Your task to perform on an android device: turn off location Image 0: 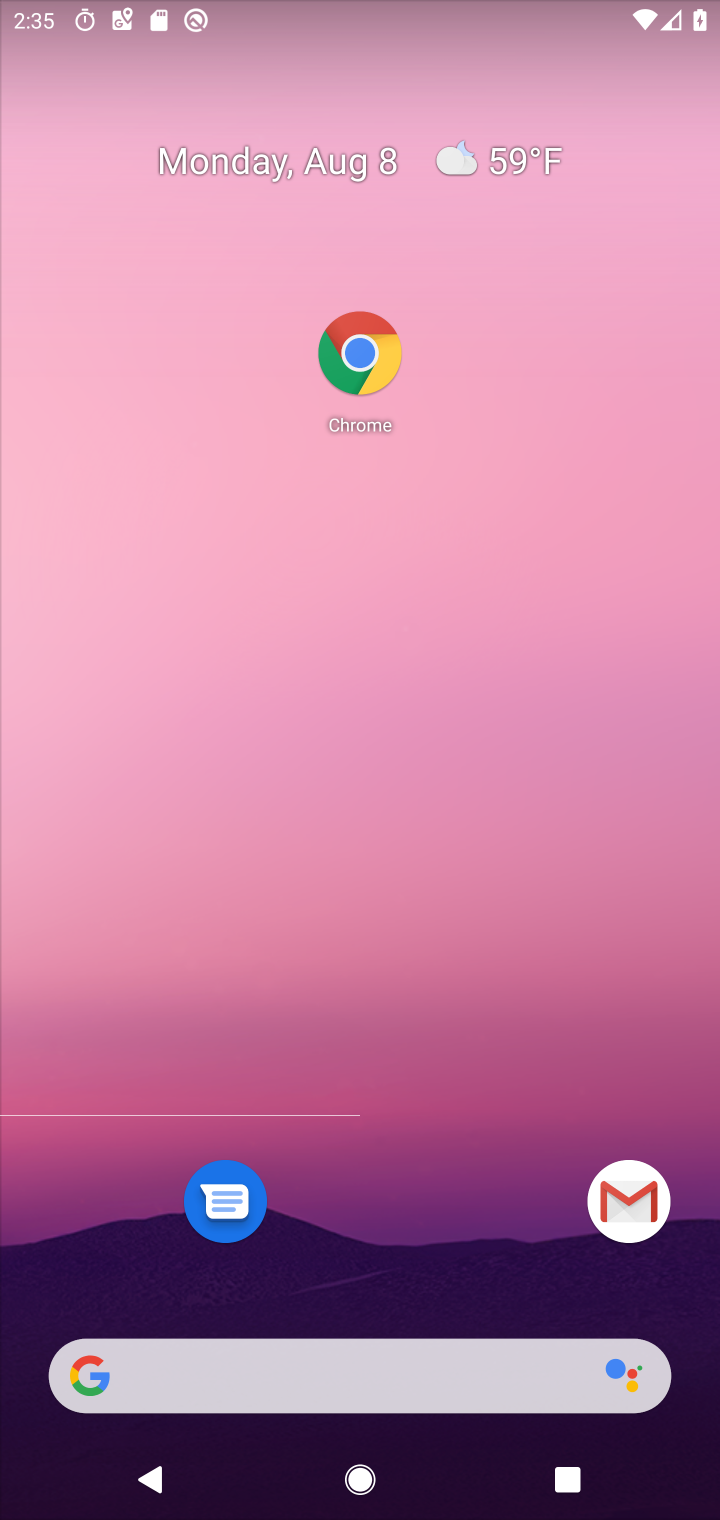
Step 0: press home button
Your task to perform on an android device: turn off location Image 1: 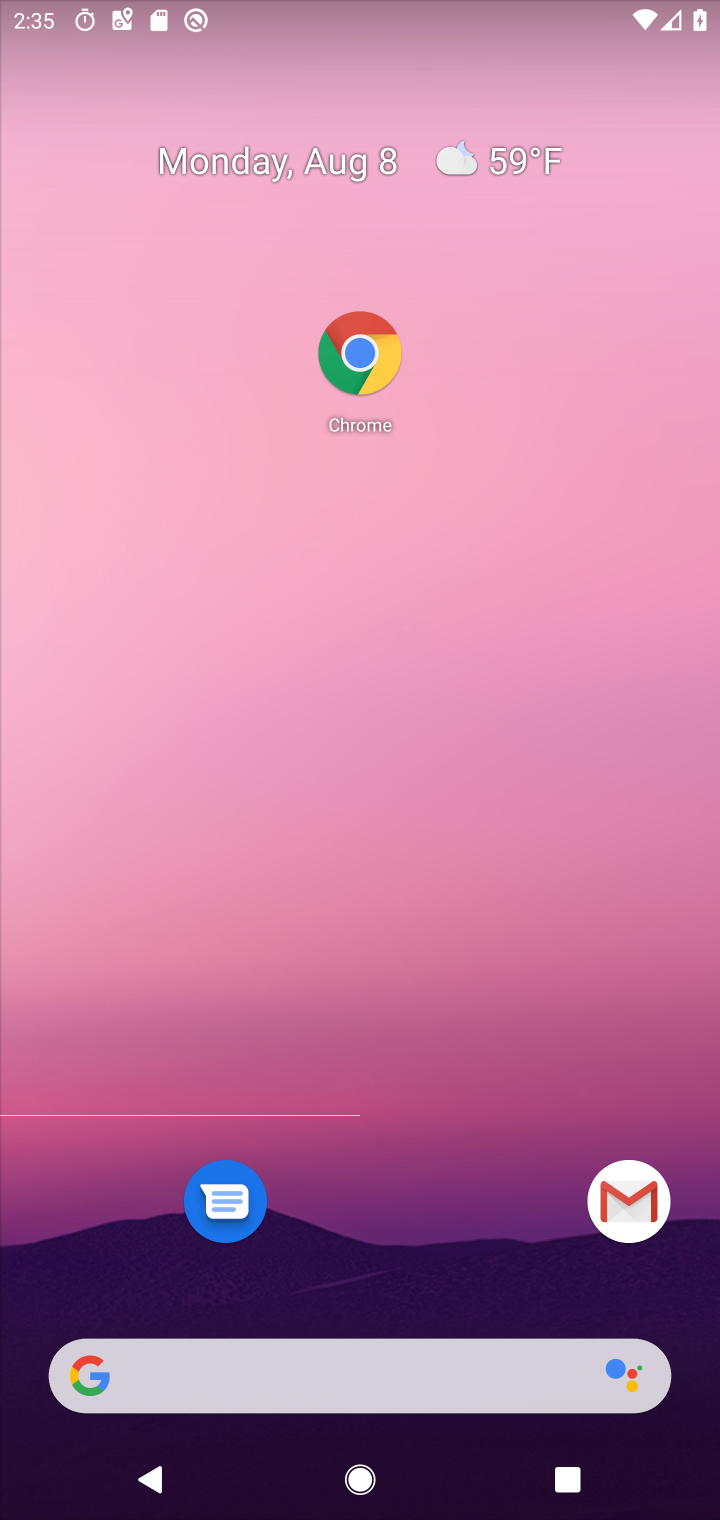
Step 1: drag from (454, 1409) to (511, 358)
Your task to perform on an android device: turn off location Image 2: 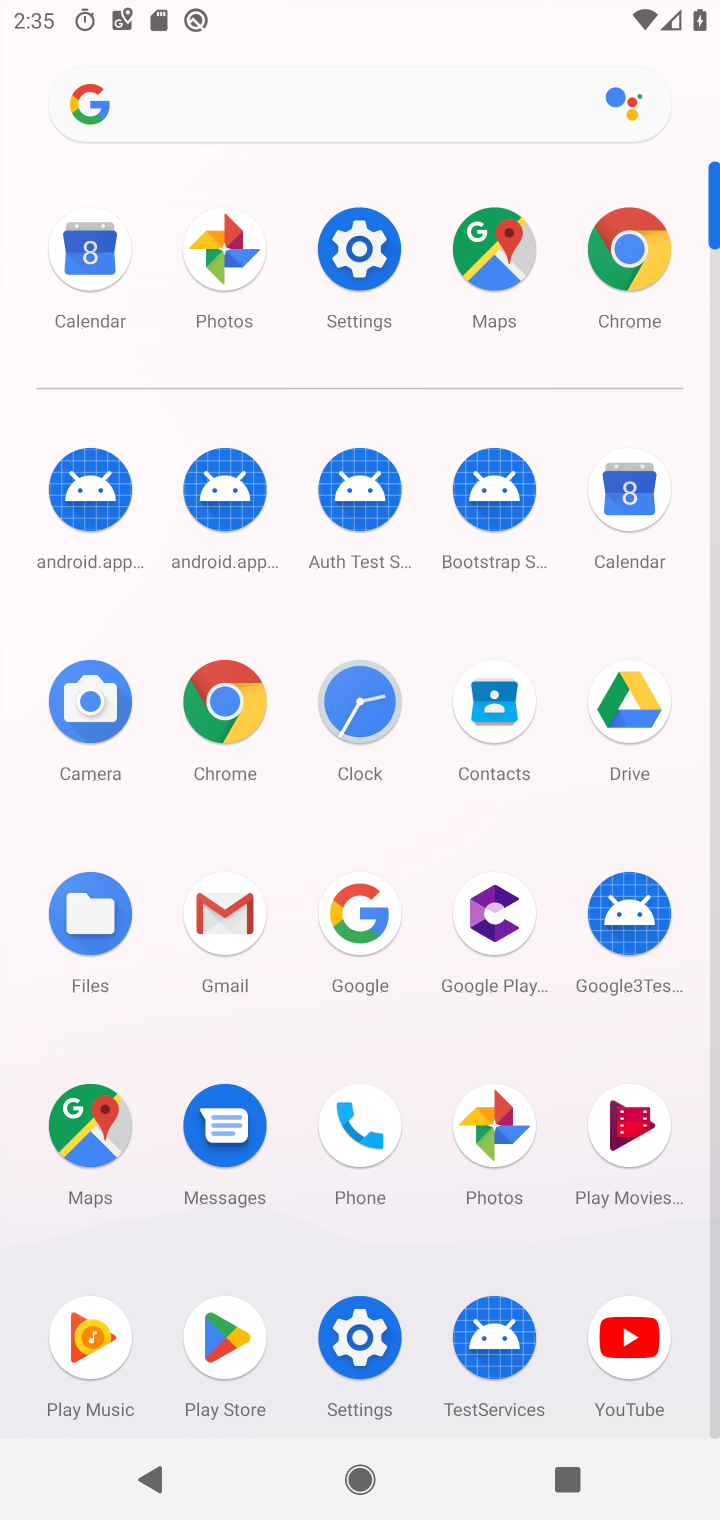
Step 2: click (335, 267)
Your task to perform on an android device: turn off location Image 3: 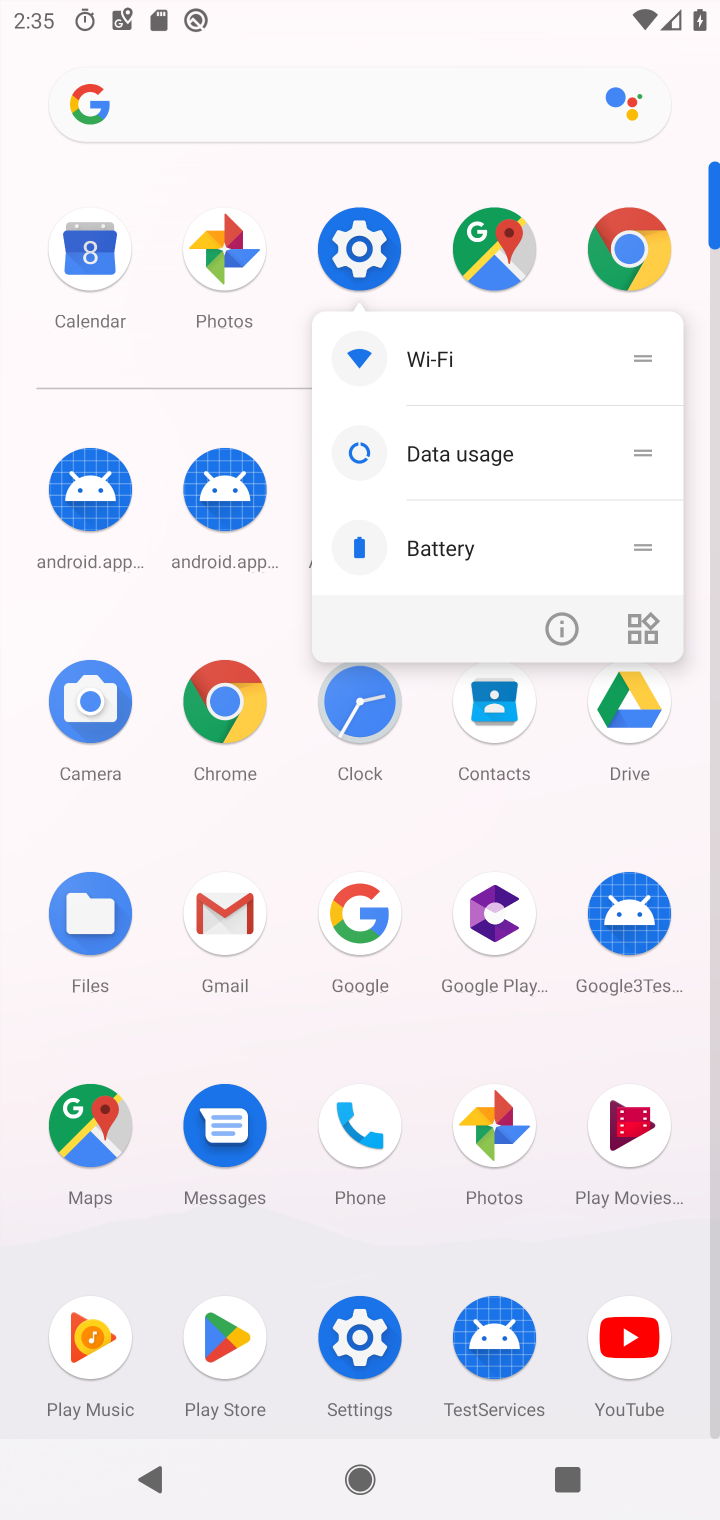
Step 3: click (350, 263)
Your task to perform on an android device: turn off location Image 4: 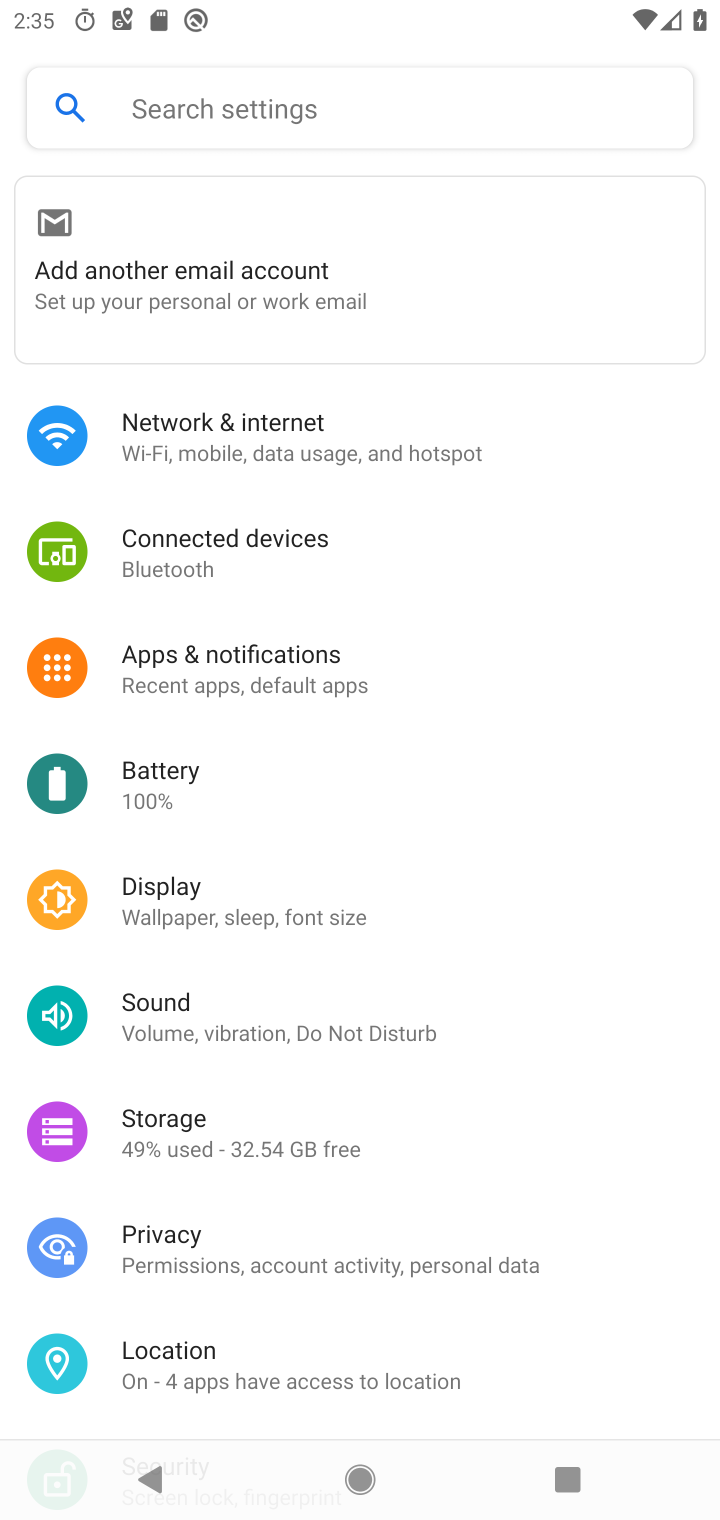
Step 4: click (191, 1340)
Your task to perform on an android device: turn off location Image 5: 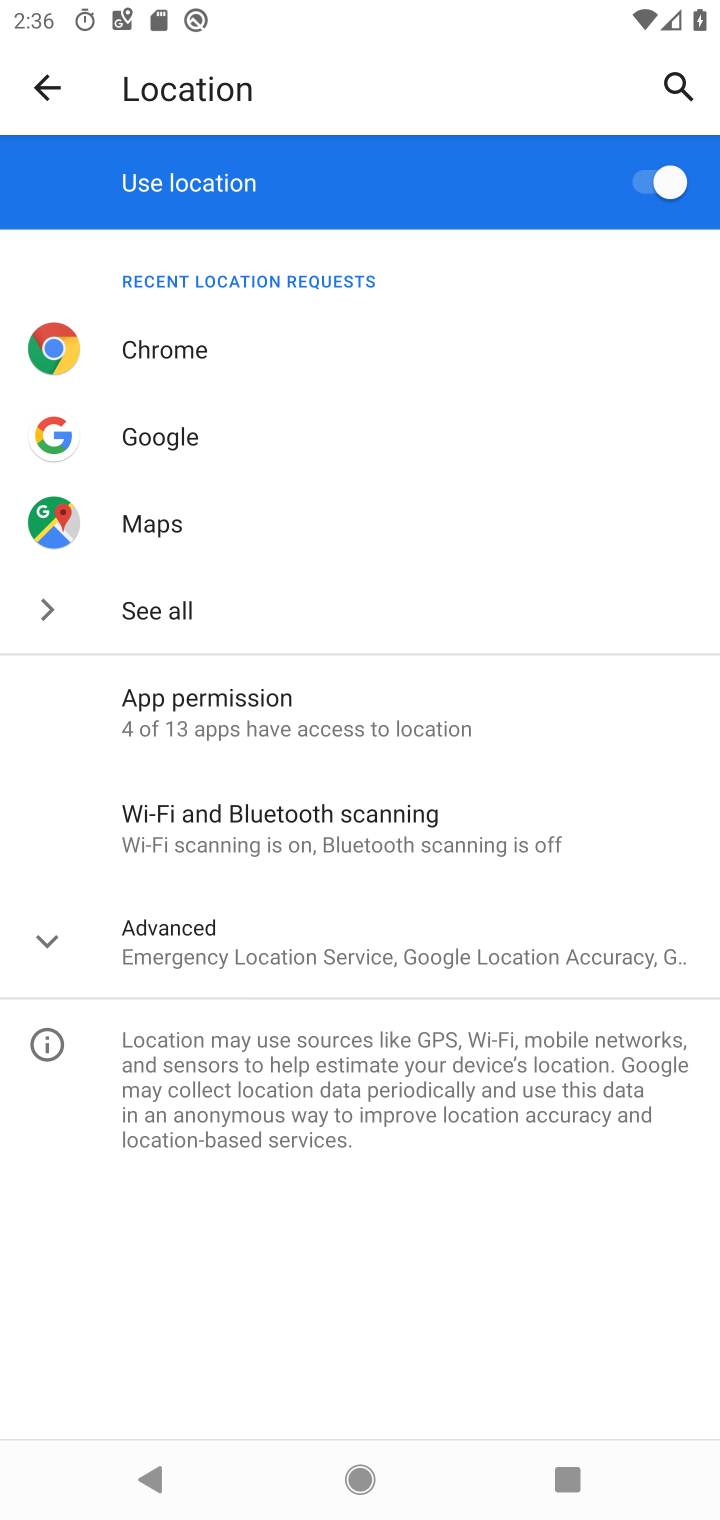
Step 5: click (642, 176)
Your task to perform on an android device: turn off location Image 6: 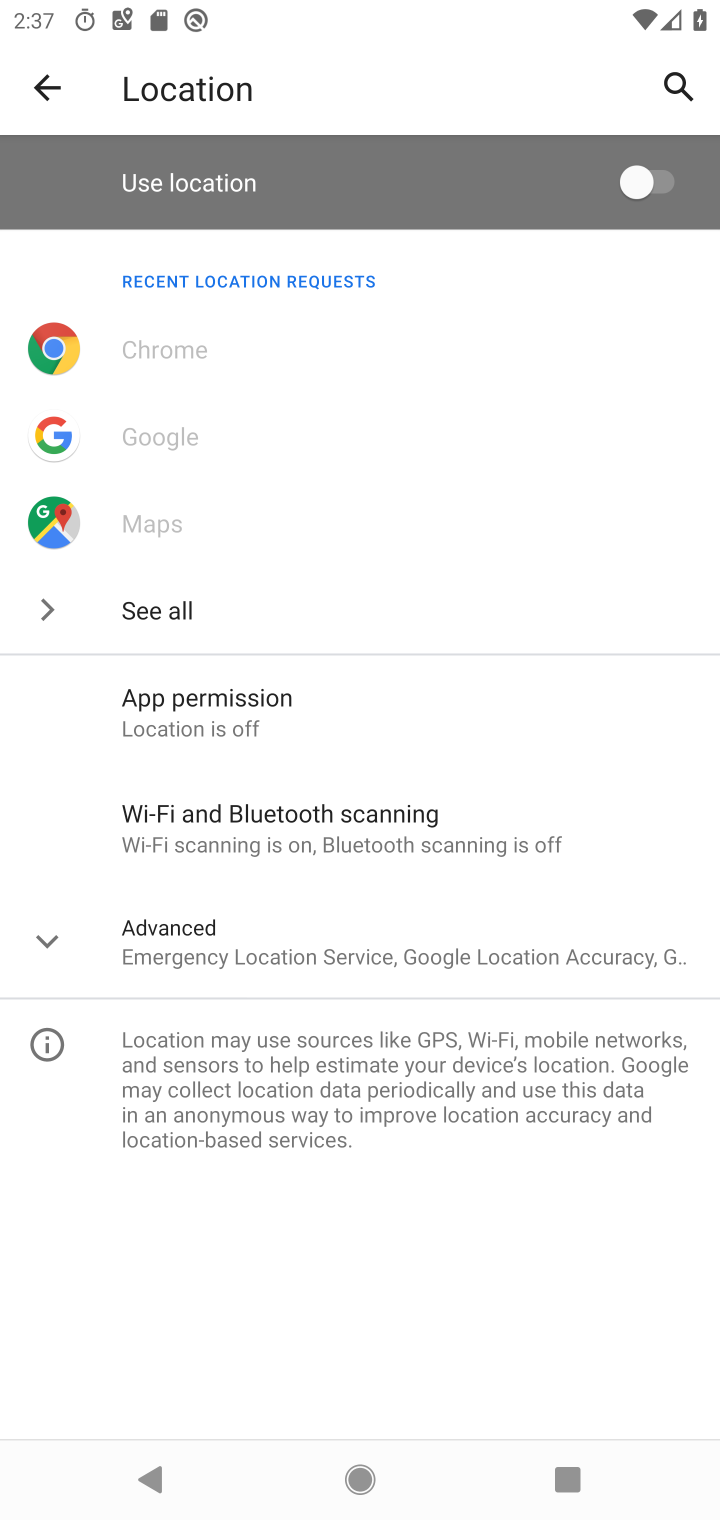
Step 6: task complete